Your task to perform on an android device: What's the weather going to be tomorrow? Image 0: 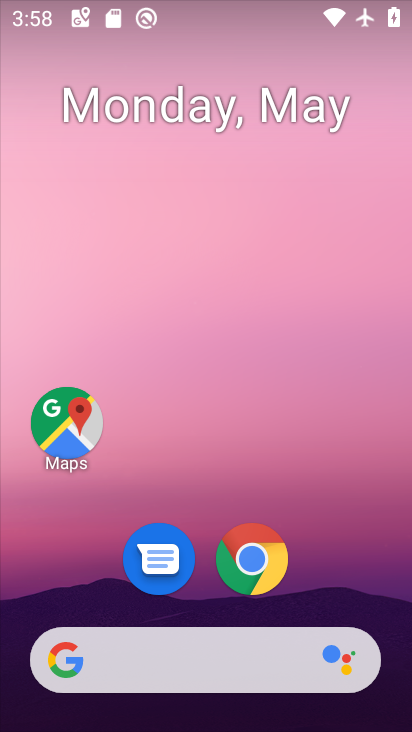
Step 0: drag from (316, 594) to (380, 1)
Your task to perform on an android device: What's the weather going to be tomorrow? Image 1: 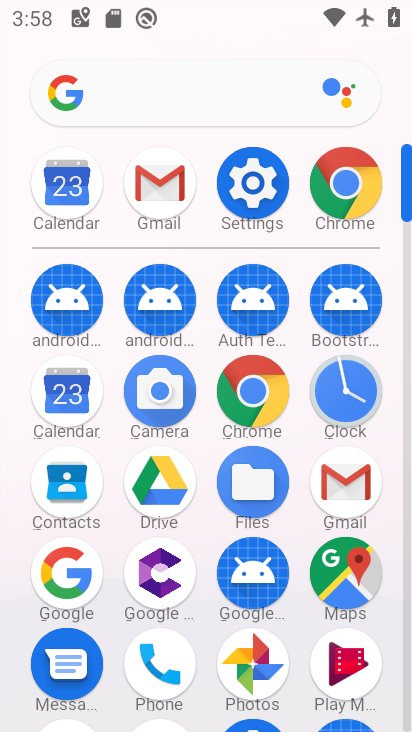
Step 1: click (73, 588)
Your task to perform on an android device: What's the weather going to be tomorrow? Image 2: 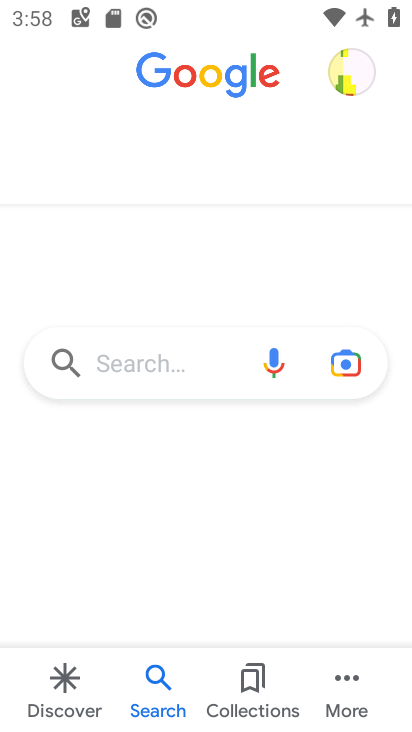
Step 2: click (144, 367)
Your task to perform on an android device: What's the weather going to be tomorrow? Image 3: 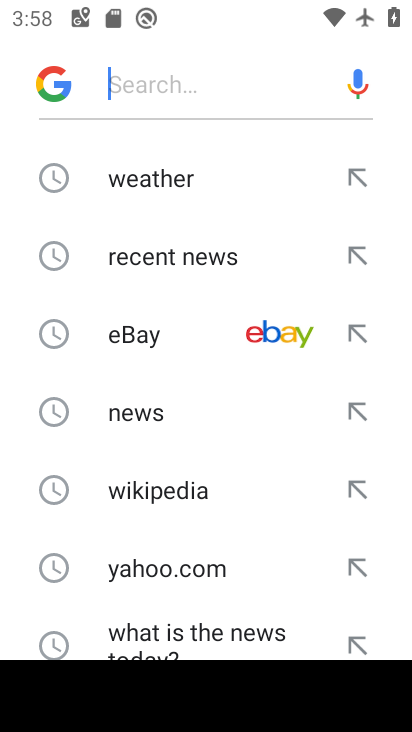
Step 3: click (172, 176)
Your task to perform on an android device: What's the weather going to be tomorrow? Image 4: 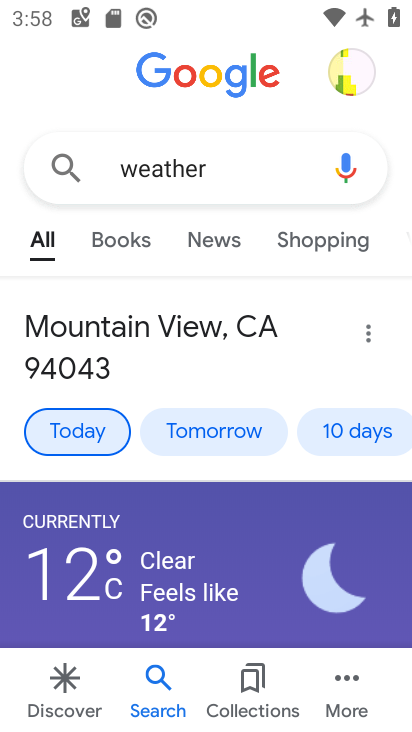
Step 4: click (222, 441)
Your task to perform on an android device: What's the weather going to be tomorrow? Image 5: 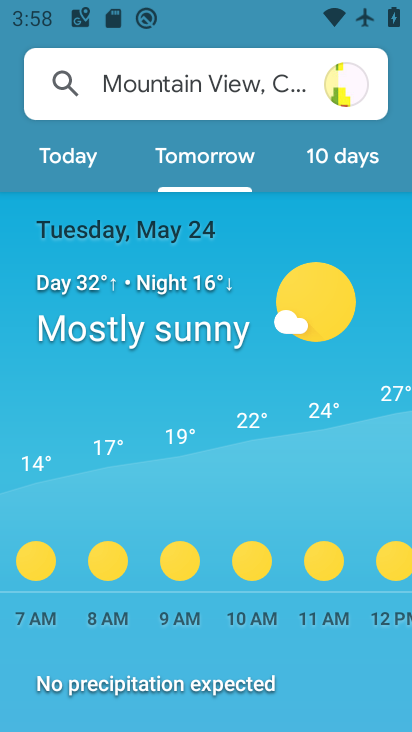
Step 5: task complete